Your task to perform on an android device: install app "Microsoft Outlook" Image 0: 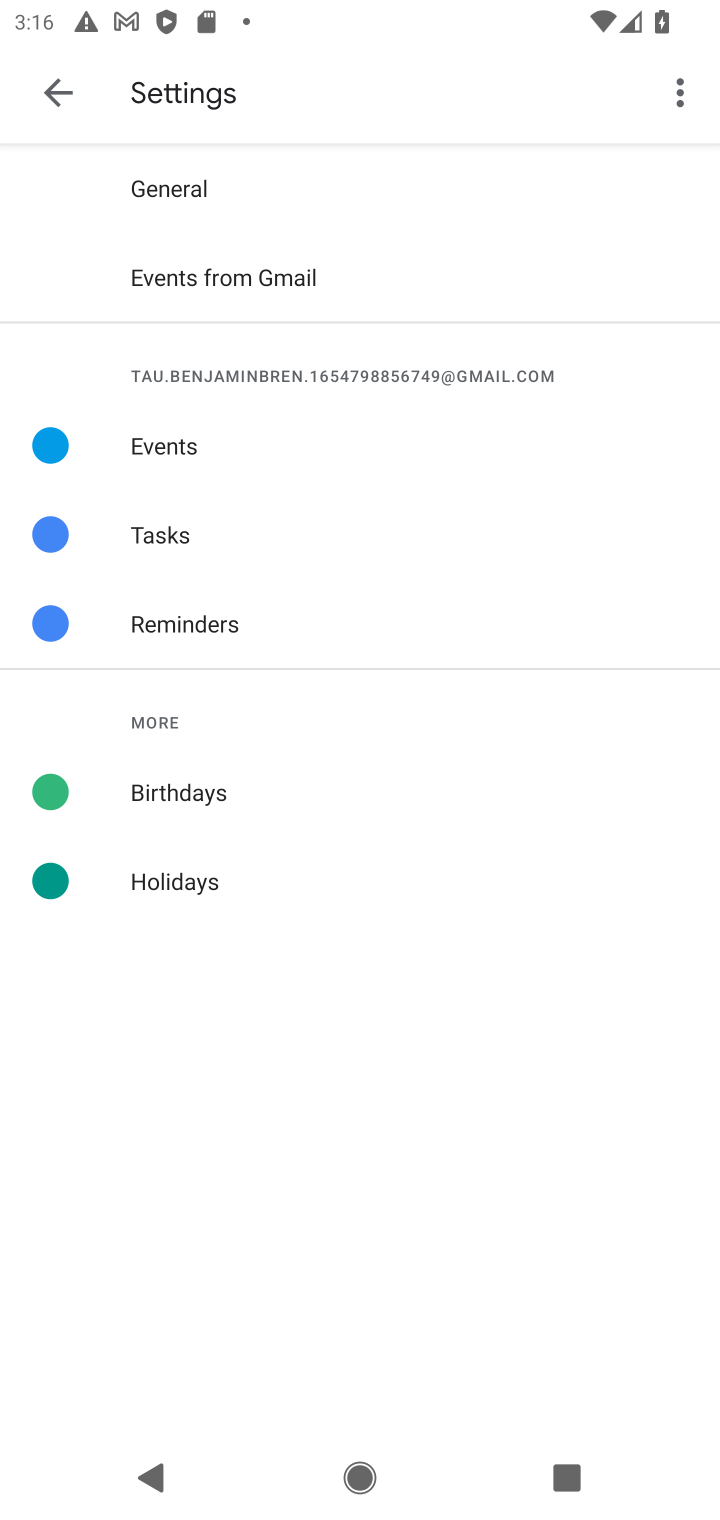
Step 0: task impossible